Your task to perform on an android device: Toggle the flashlight Image 0: 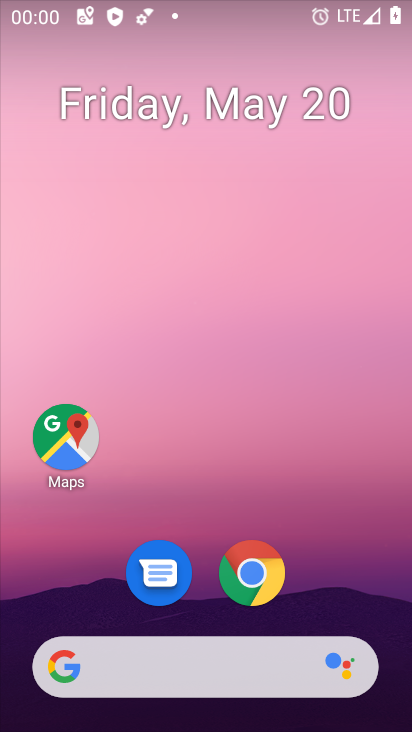
Step 0: drag from (219, 587) to (221, 131)
Your task to perform on an android device: Toggle the flashlight Image 1: 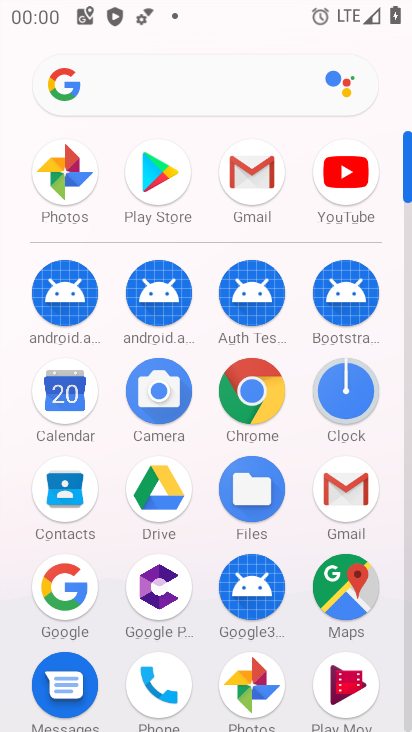
Step 1: drag from (184, 572) to (208, 264)
Your task to perform on an android device: Toggle the flashlight Image 2: 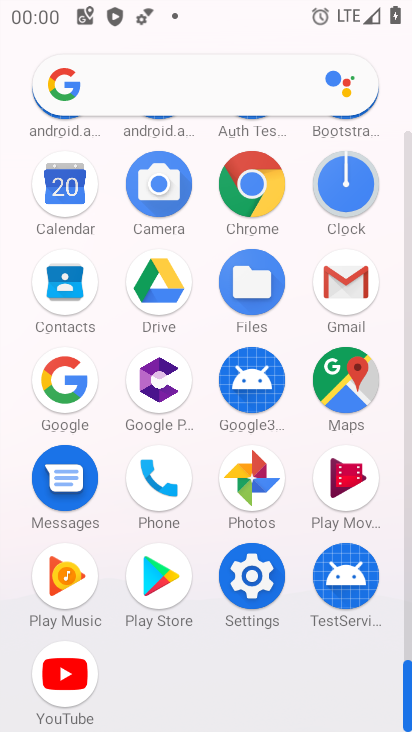
Step 2: click (250, 552)
Your task to perform on an android device: Toggle the flashlight Image 3: 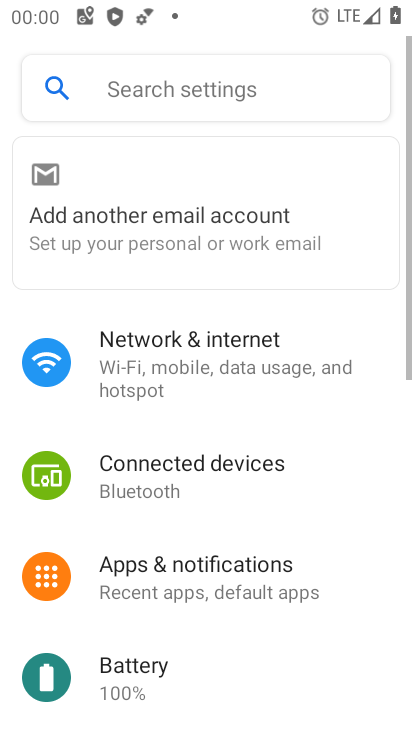
Step 3: task complete